Your task to perform on an android device: Open ESPN.com Image 0: 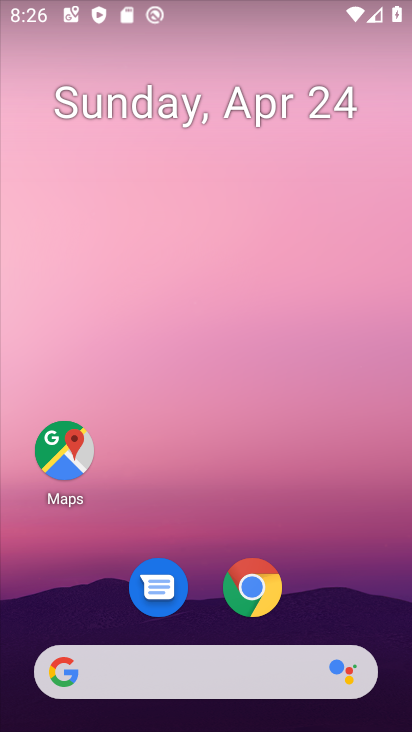
Step 0: click (249, 571)
Your task to perform on an android device: Open ESPN.com Image 1: 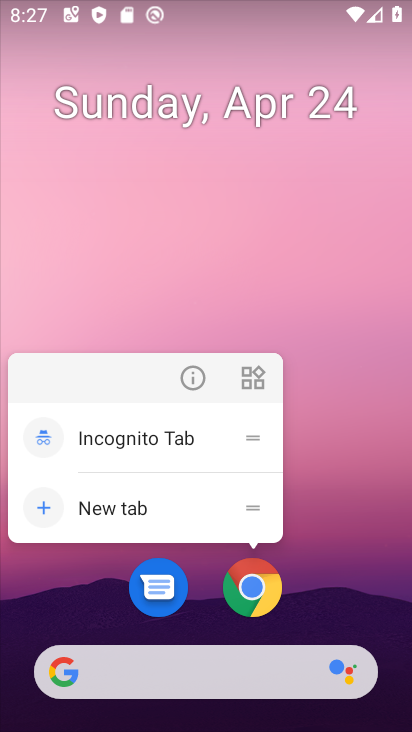
Step 1: click (257, 590)
Your task to perform on an android device: Open ESPN.com Image 2: 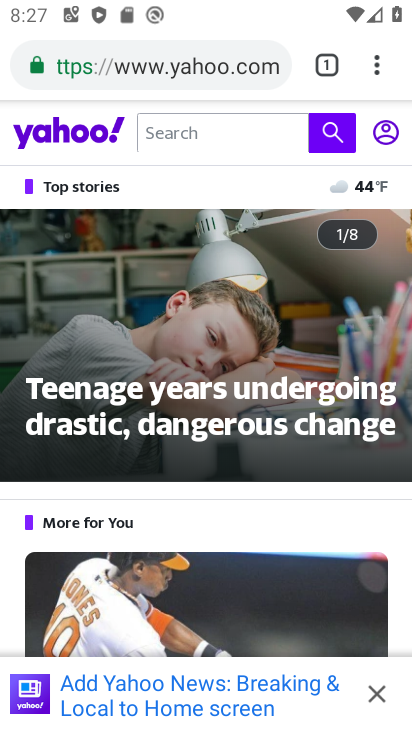
Step 2: click (322, 65)
Your task to perform on an android device: Open ESPN.com Image 3: 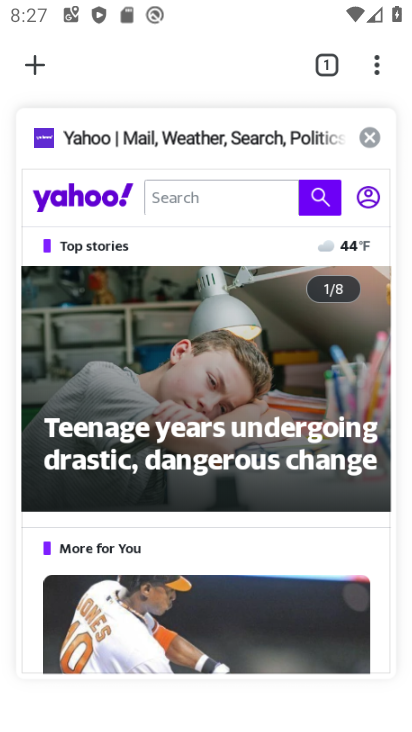
Step 3: click (377, 135)
Your task to perform on an android device: Open ESPN.com Image 4: 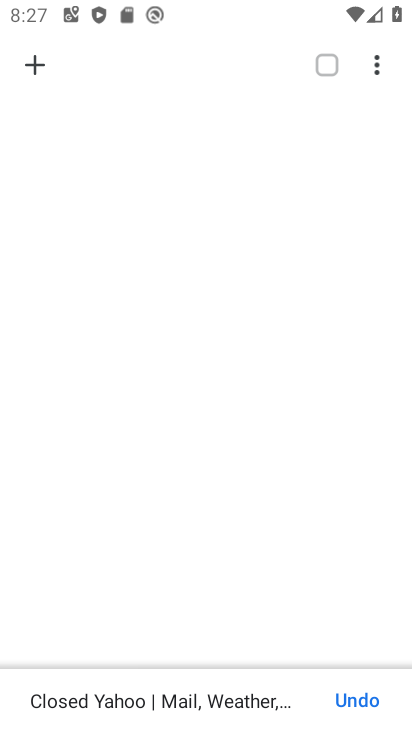
Step 4: click (40, 67)
Your task to perform on an android device: Open ESPN.com Image 5: 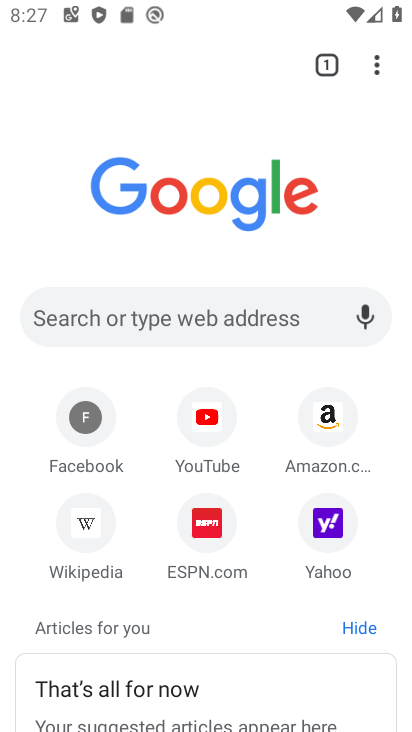
Step 5: click (222, 536)
Your task to perform on an android device: Open ESPN.com Image 6: 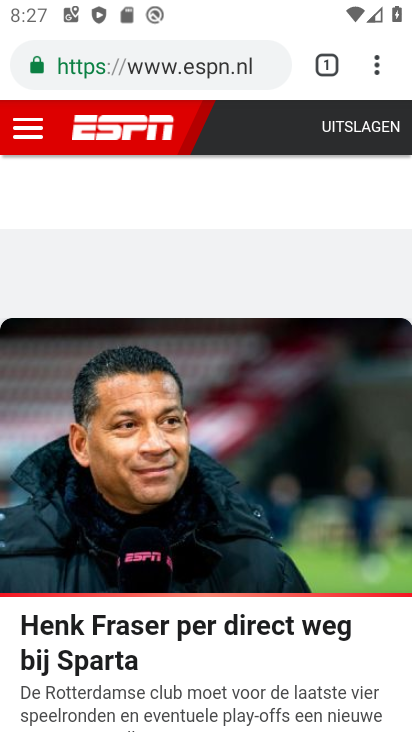
Step 6: task complete